Your task to perform on an android device: delete a single message in the gmail app Image 0: 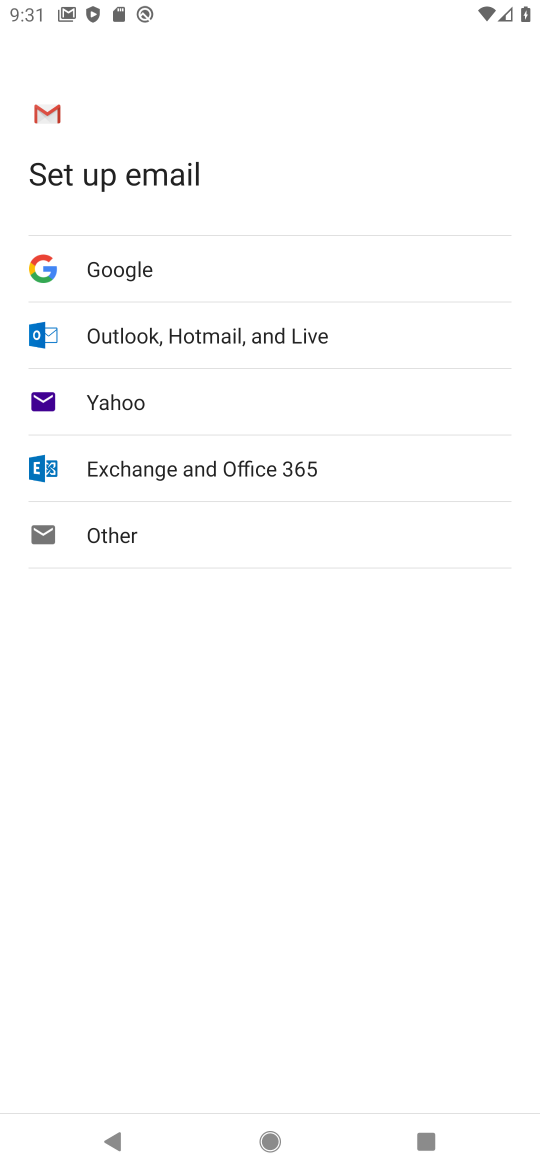
Step 0: press home button
Your task to perform on an android device: delete a single message in the gmail app Image 1: 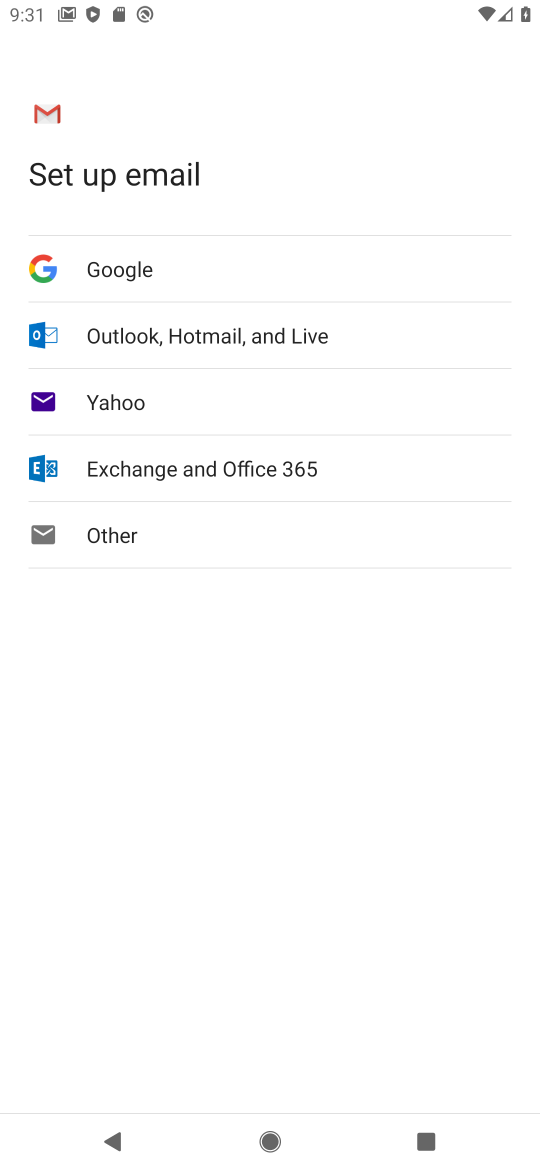
Step 1: press home button
Your task to perform on an android device: delete a single message in the gmail app Image 2: 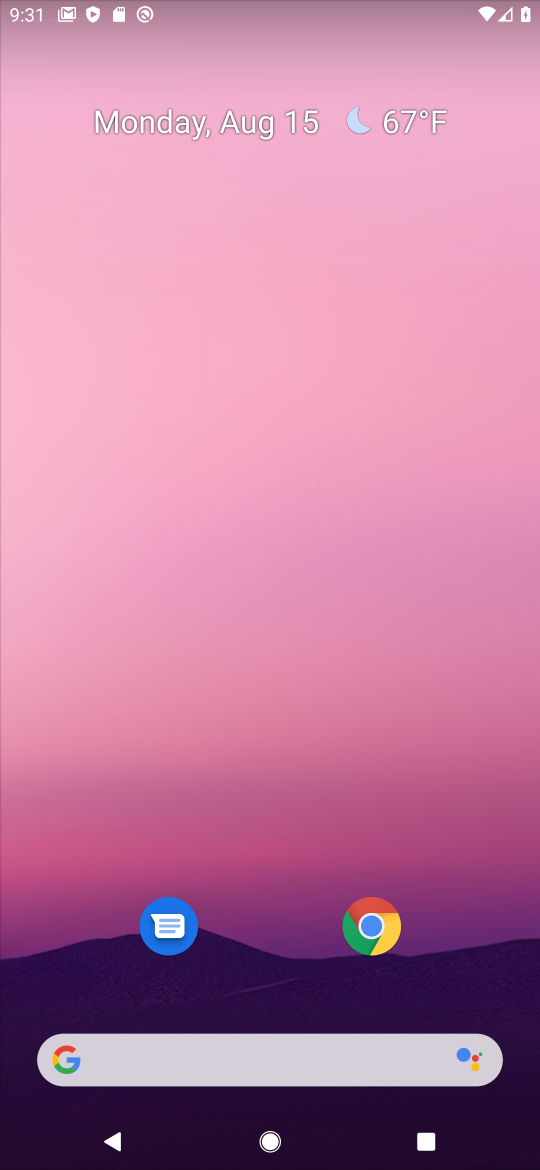
Step 2: drag from (523, 1149) to (320, 0)
Your task to perform on an android device: delete a single message in the gmail app Image 3: 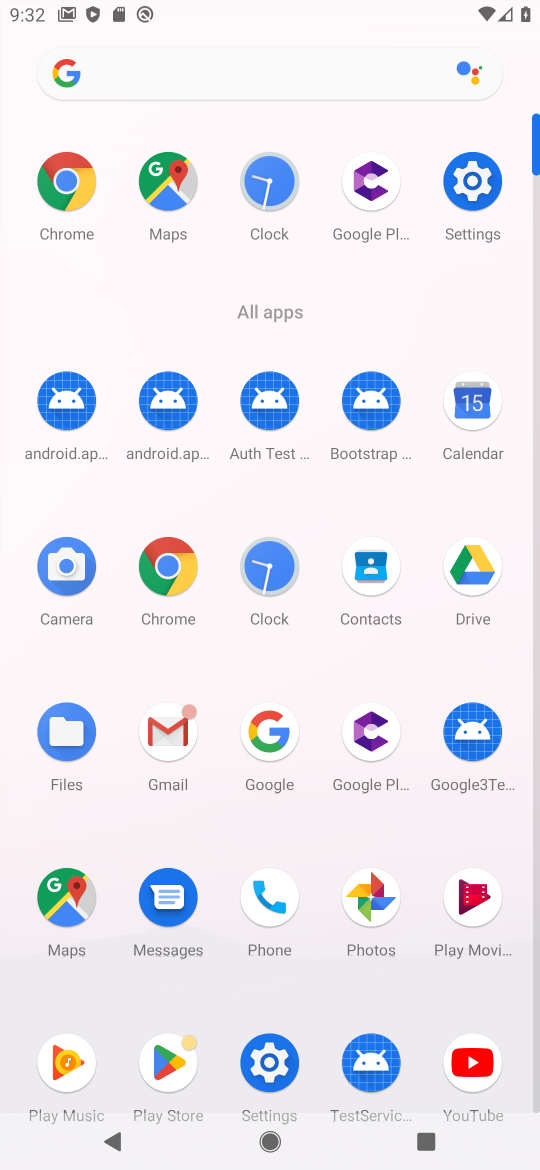
Step 3: click (147, 733)
Your task to perform on an android device: delete a single message in the gmail app Image 4: 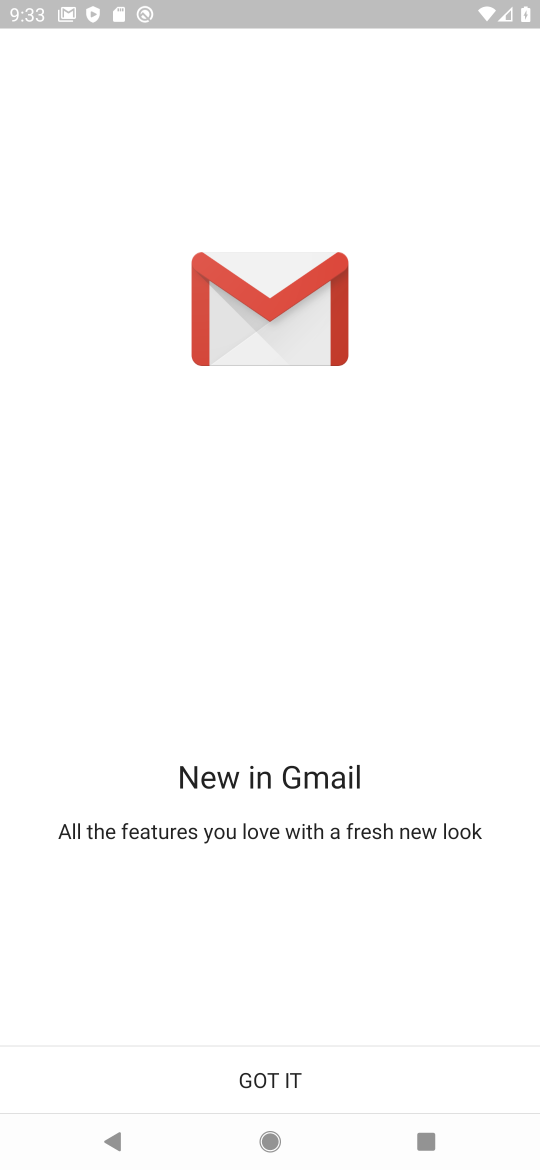
Step 4: click (250, 1094)
Your task to perform on an android device: delete a single message in the gmail app Image 5: 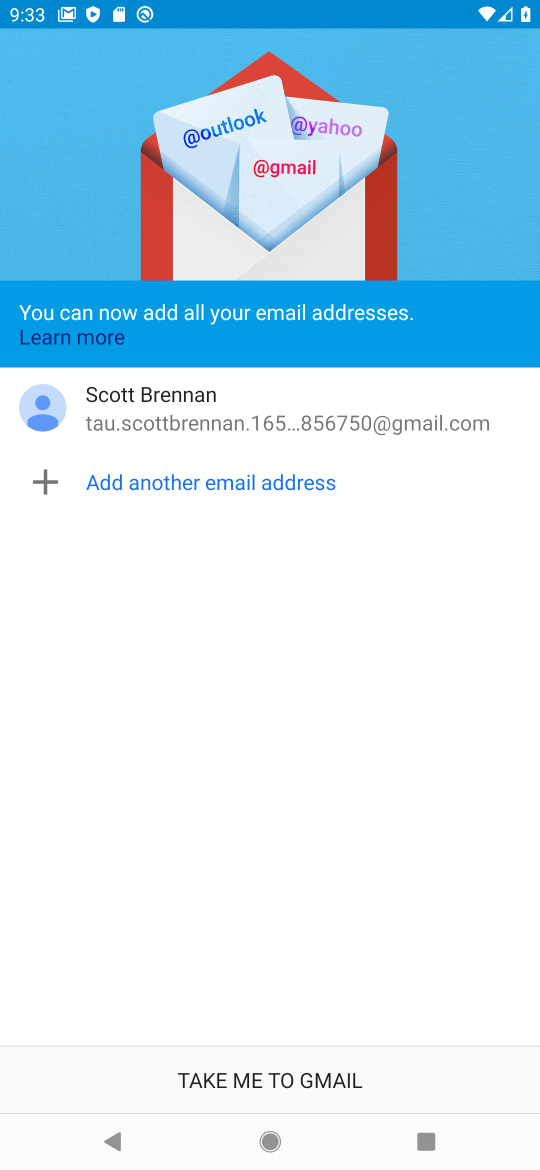
Step 5: click (250, 1094)
Your task to perform on an android device: delete a single message in the gmail app Image 6: 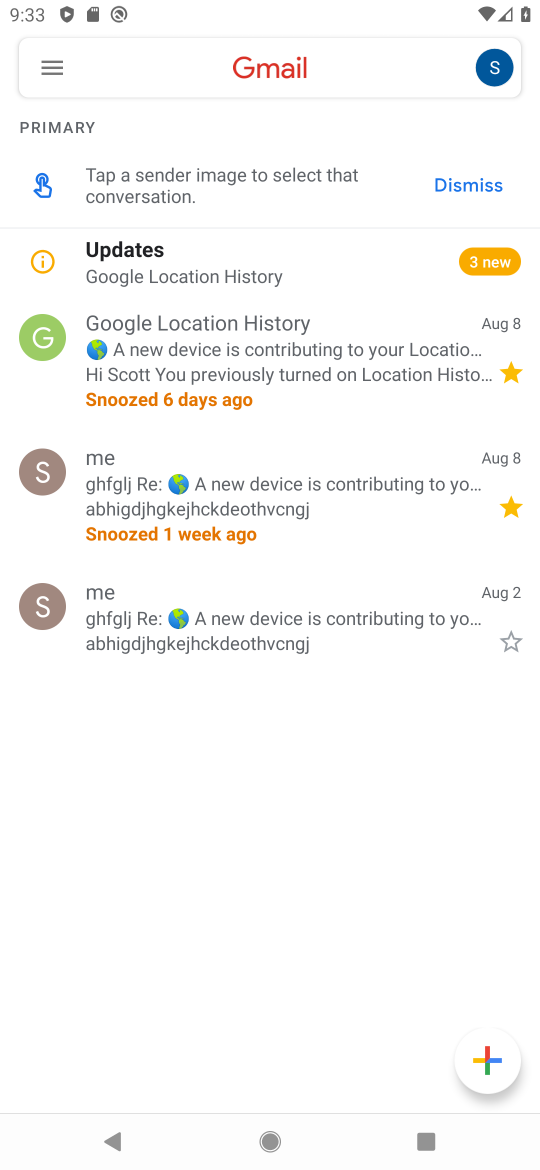
Step 6: click (50, 78)
Your task to perform on an android device: delete a single message in the gmail app Image 7: 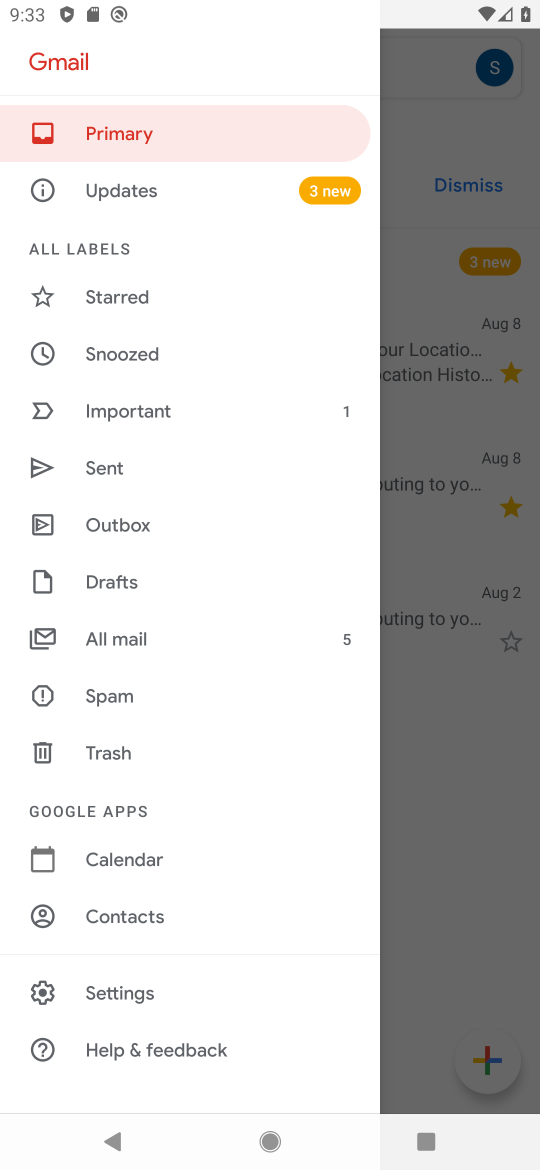
Step 7: click (443, 643)
Your task to perform on an android device: delete a single message in the gmail app Image 8: 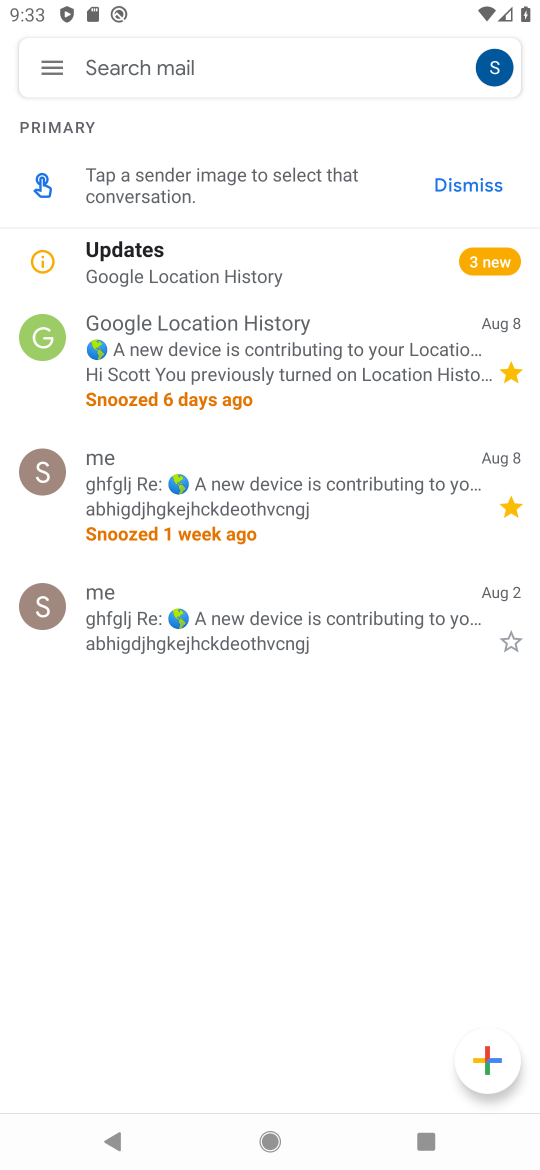
Step 8: click (326, 374)
Your task to perform on an android device: delete a single message in the gmail app Image 9: 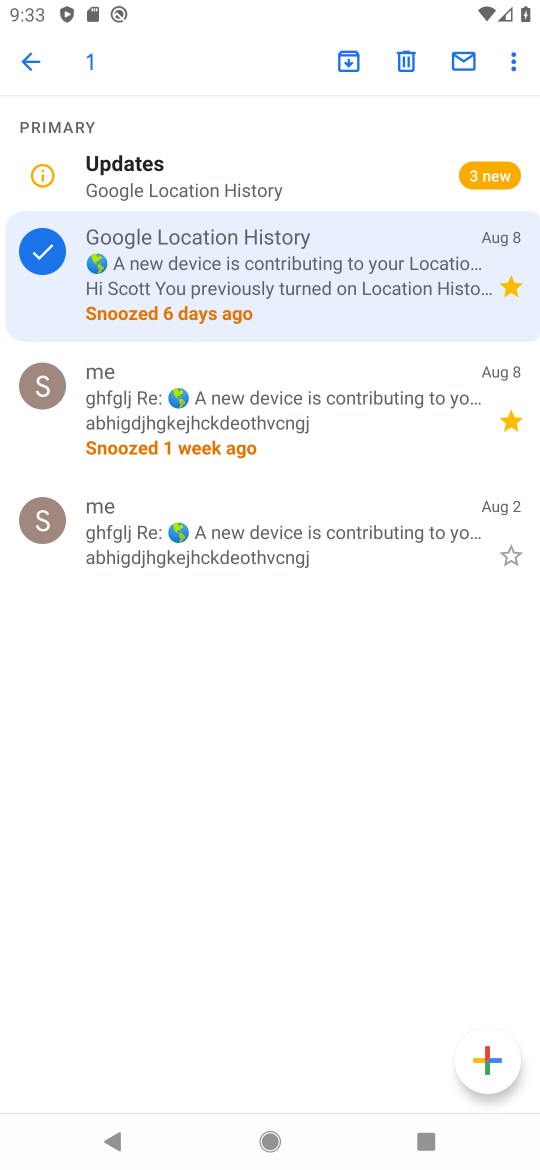
Step 9: click (404, 60)
Your task to perform on an android device: delete a single message in the gmail app Image 10: 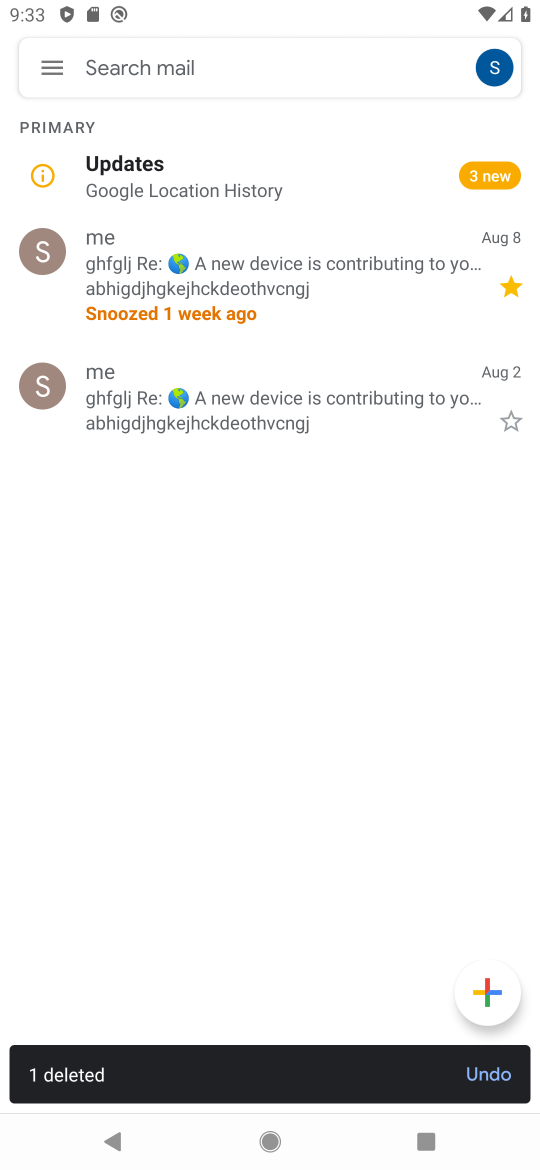
Step 10: task complete